Your task to perform on an android device: check out phone information Image 0: 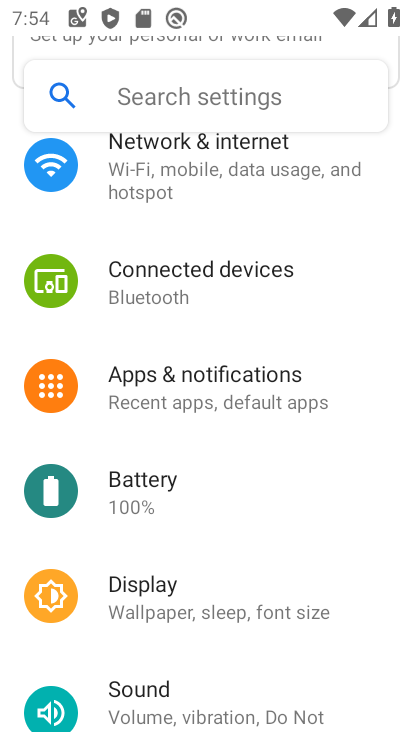
Step 0: drag from (290, 605) to (318, 208)
Your task to perform on an android device: check out phone information Image 1: 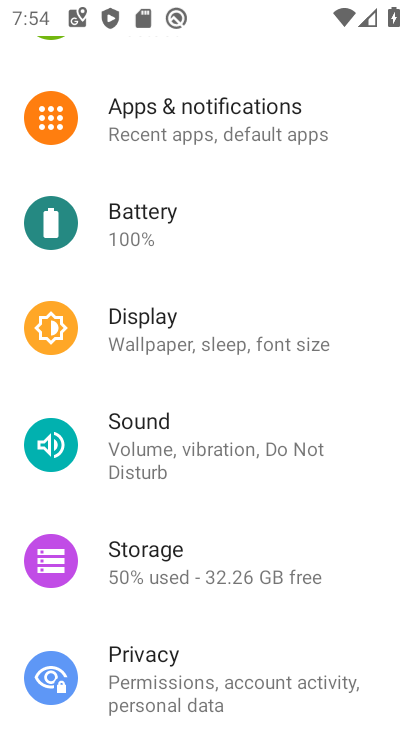
Step 1: drag from (217, 593) to (232, 359)
Your task to perform on an android device: check out phone information Image 2: 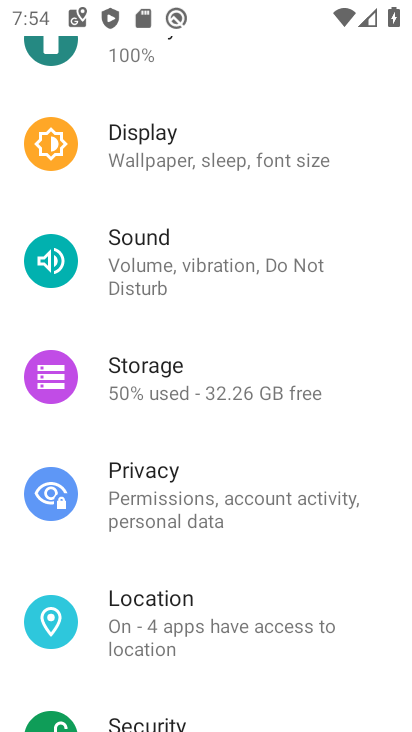
Step 2: drag from (216, 646) to (247, 382)
Your task to perform on an android device: check out phone information Image 3: 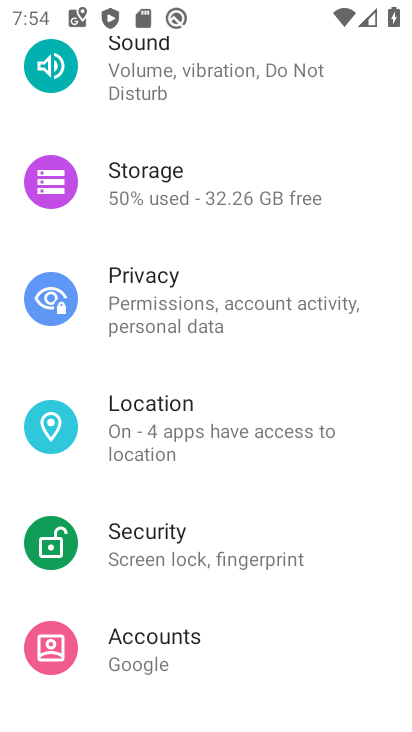
Step 3: drag from (199, 652) to (261, 305)
Your task to perform on an android device: check out phone information Image 4: 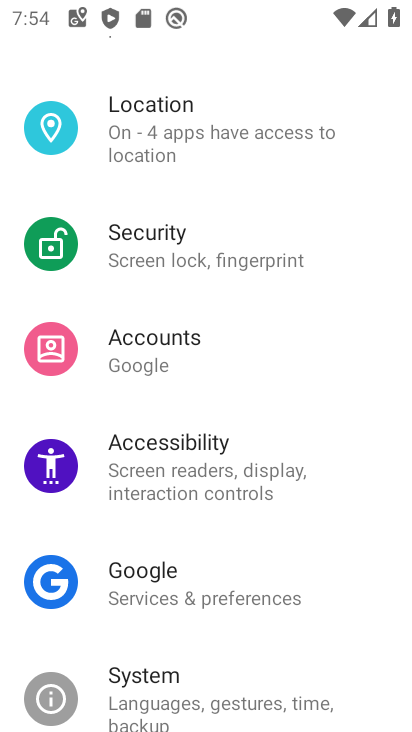
Step 4: drag from (236, 611) to (281, 294)
Your task to perform on an android device: check out phone information Image 5: 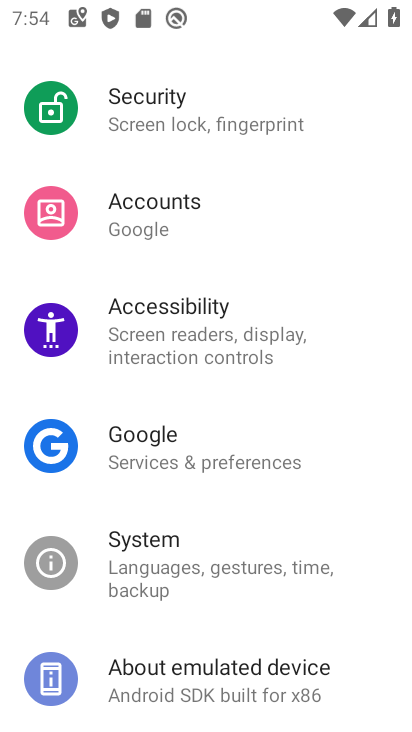
Step 5: click (238, 672)
Your task to perform on an android device: check out phone information Image 6: 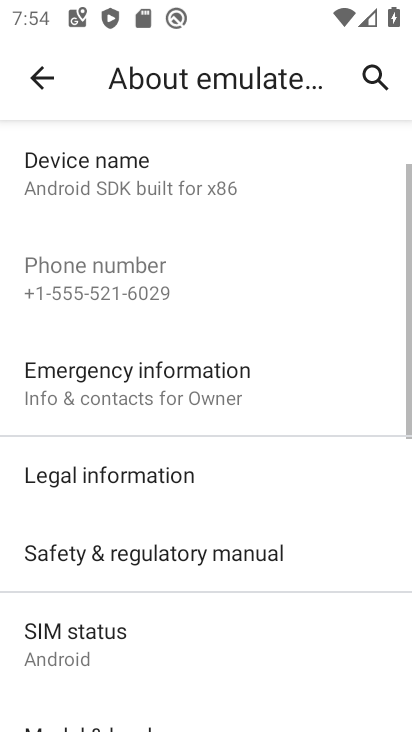
Step 6: task complete